Your task to perform on an android device: Clear the cart on walmart. Add macbook to the cart on walmart, then select checkout. Image 0: 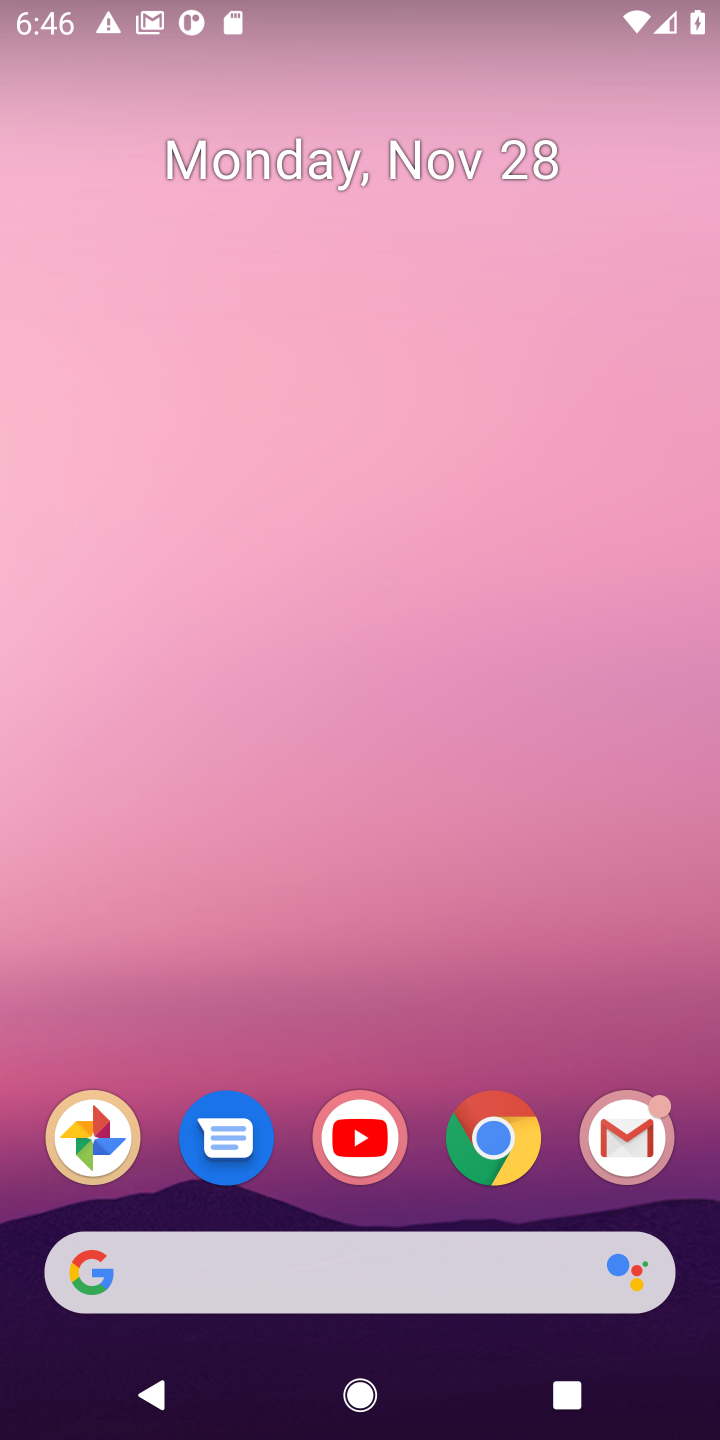
Step 0: click (487, 1133)
Your task to perform on an android device: Clear the cart on walmart. Add macbook to the cart on walmart, then select checkout. Image 1: 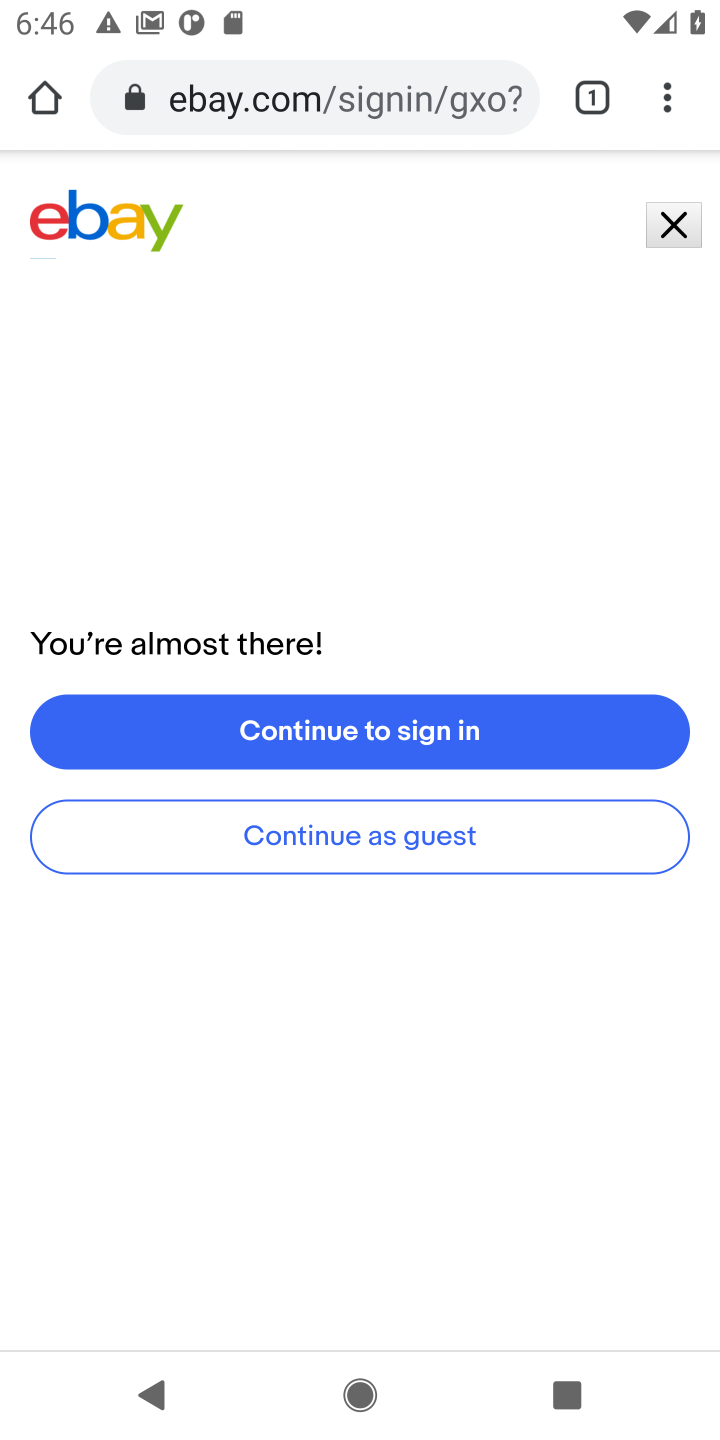
Step 1: click (323, 95)
Your task to perform on an android device: Clear the cart on walmart. Add macbook to the cart on walmart, then select checkout. Image 2: 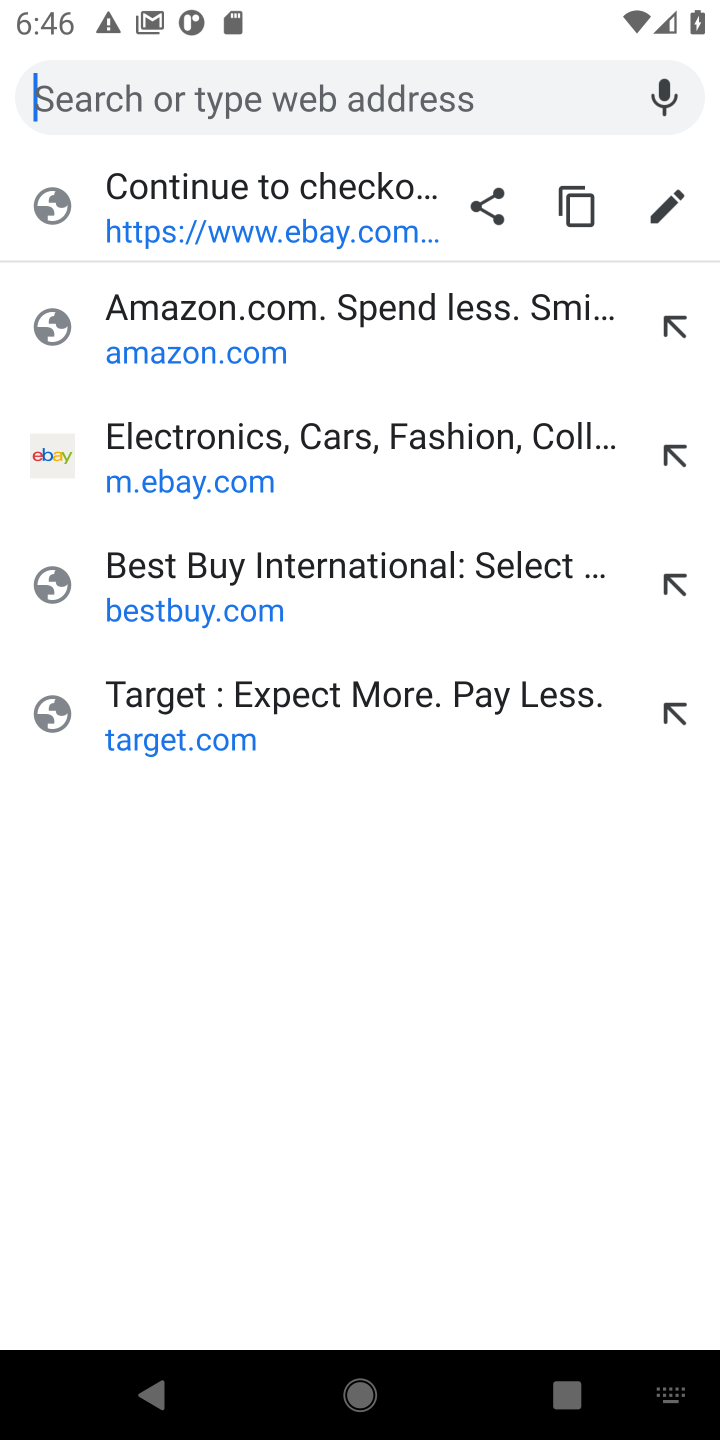
Step 2: type "walmart.com"
Your task to perform on an android device: Clear the cart on walmart. Add macbook to the cart on walmart, then select checkout. Image 3: 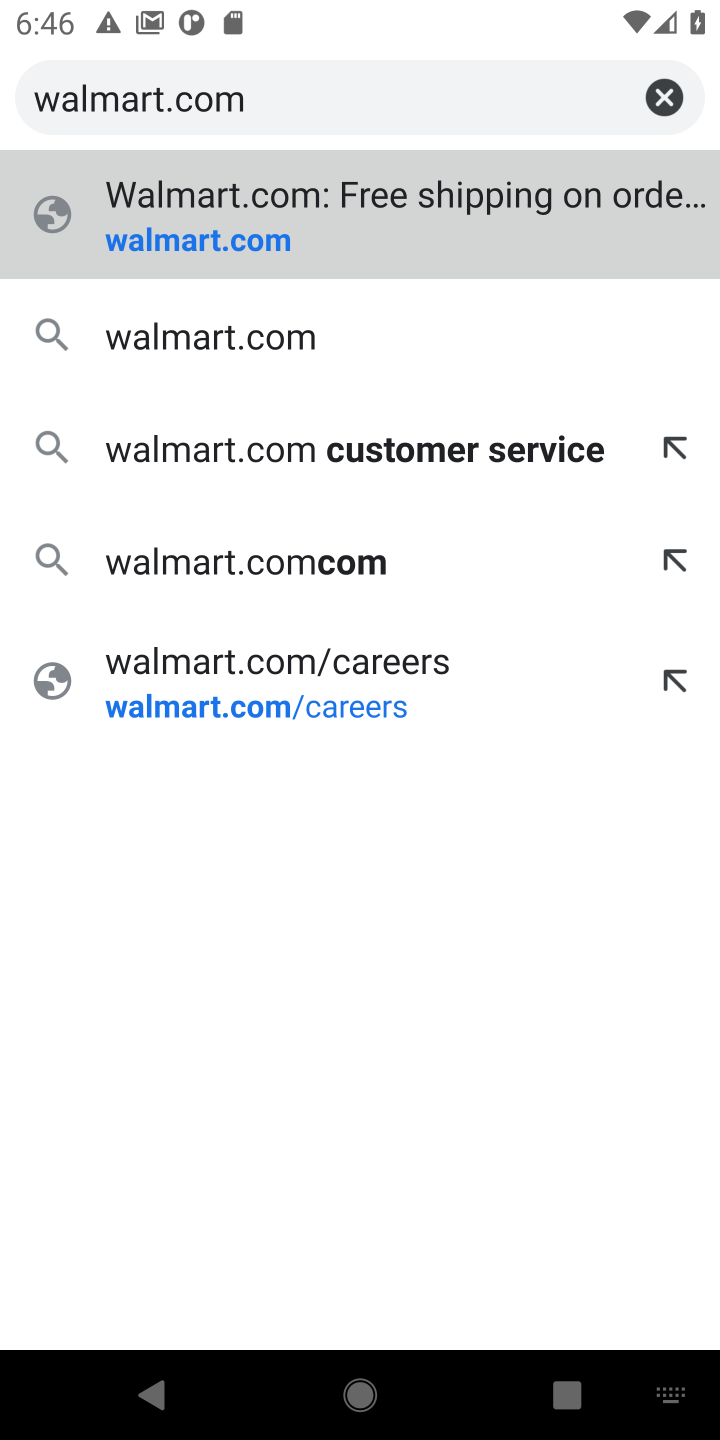
Step 3: click (180, 241)
Your task to perform on an android device: Clear the cart on walmart. Add macbook to the cart on walmart, then select checkout. Image 4: 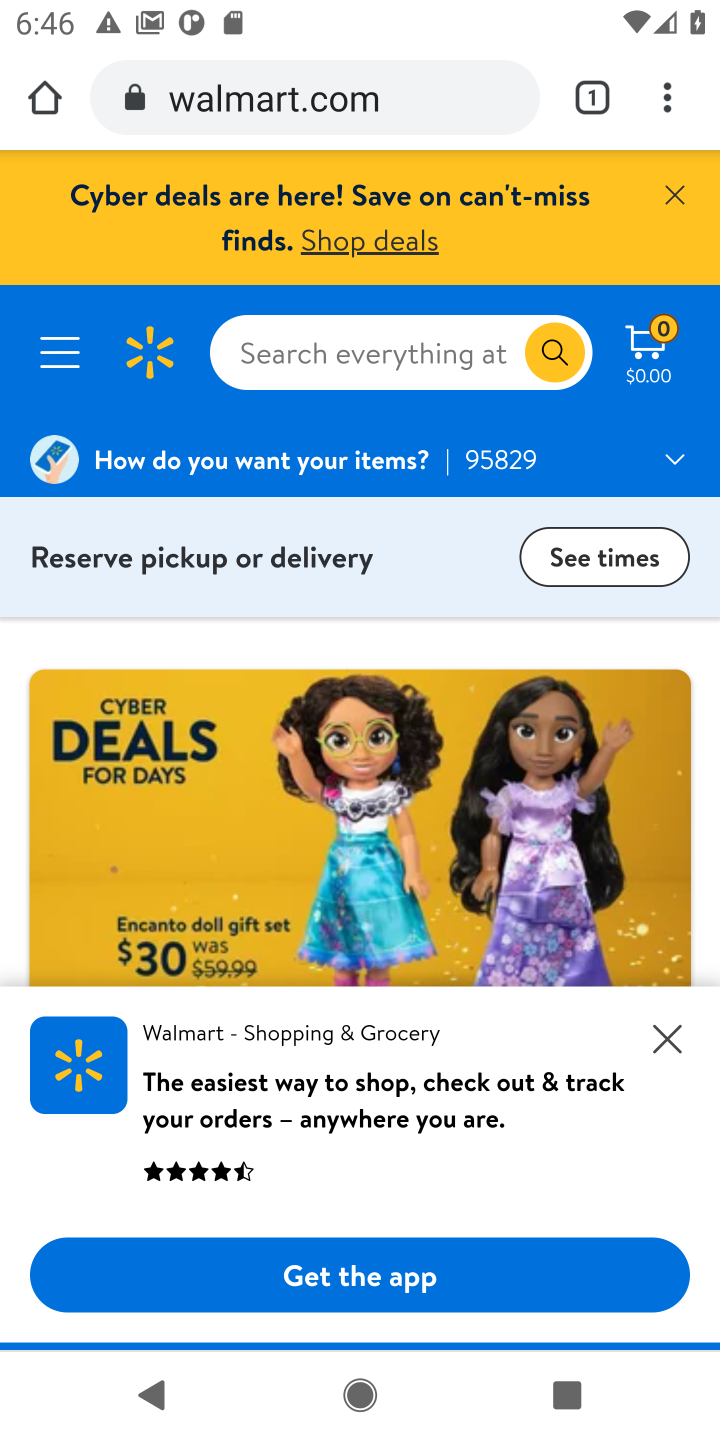
Step 4: click (649, 355)
Your task to perform on an android device: Clear the cart on walmart. Add macbook to the cart on walmart, then select checkout. Image 5: 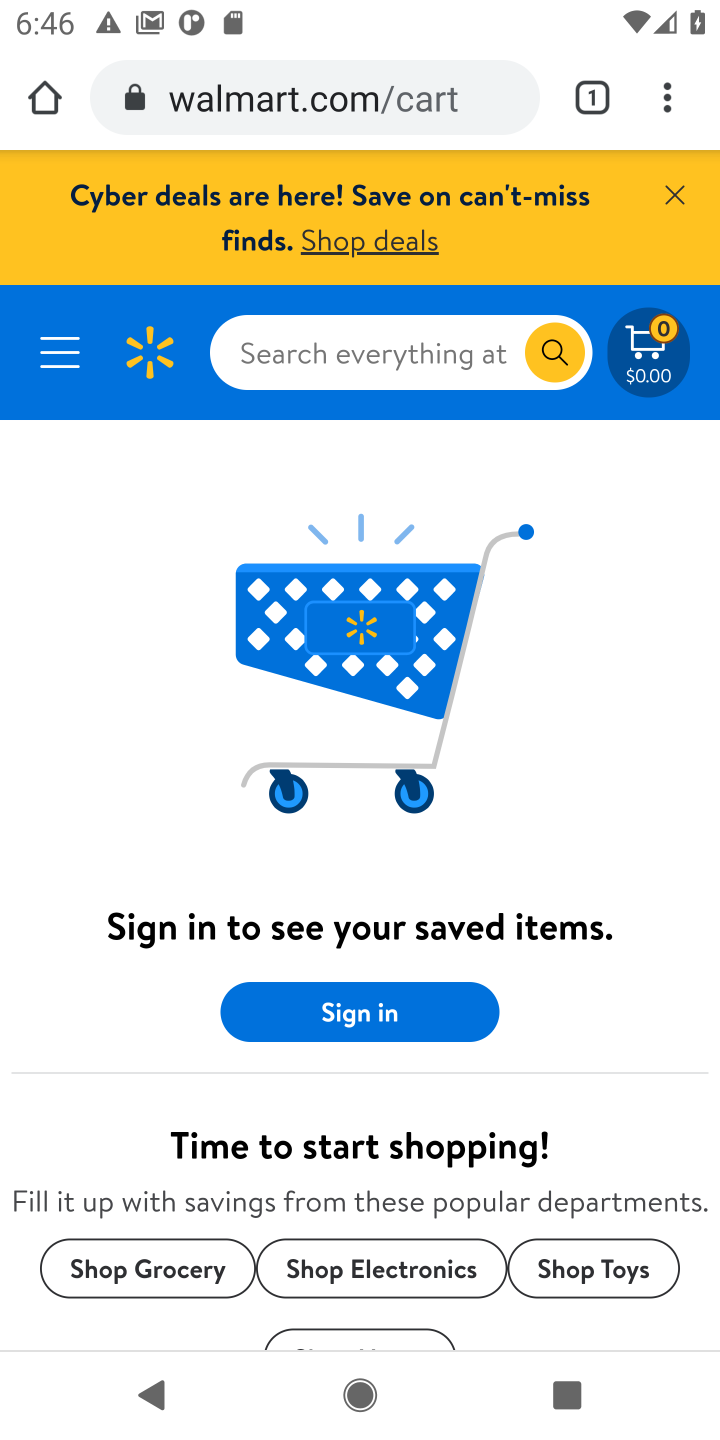
Step 5: click (587, 633)
Your task to perform on an android device: Clear the cart on walmart. Add macbook to the cart on walmart, then select checkout. Image 6: 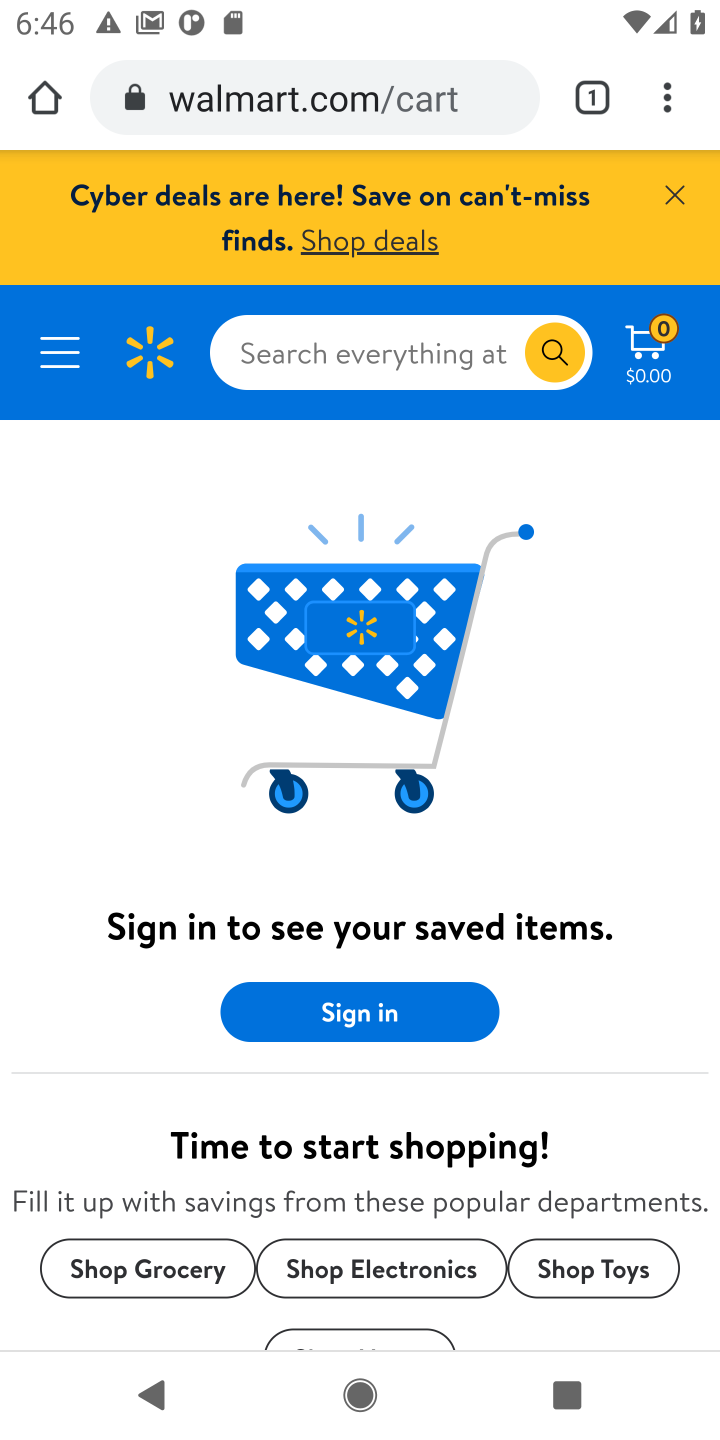
Step 6: click (276, 342)
Your task to perform on an android device: Clear the cart on walmart. Add macbook to the cart on walmart, then select checkout. Image 7: 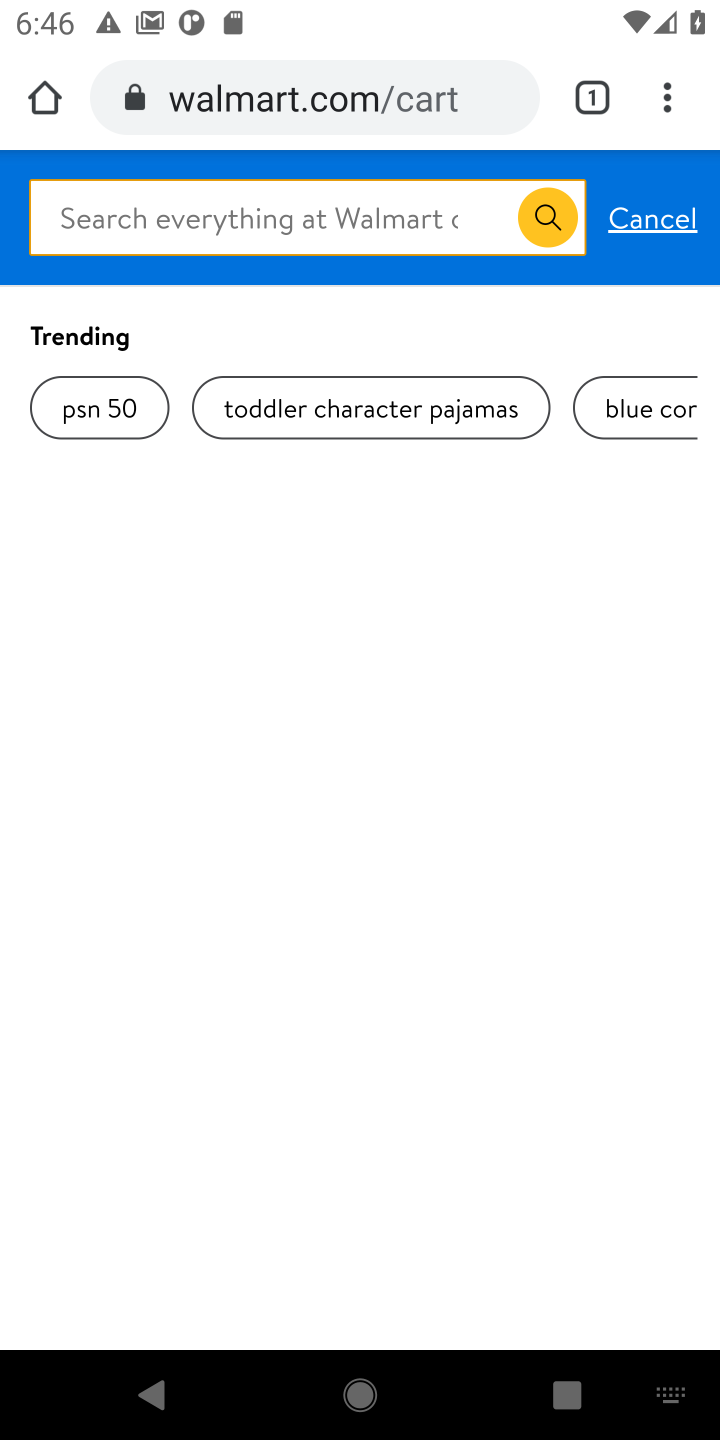
Step 7: type "macbook "
Your task to perform on an android device: Clear the cart on walmart. Add macbook to the cart on walmart, then select checkout. Image 8: 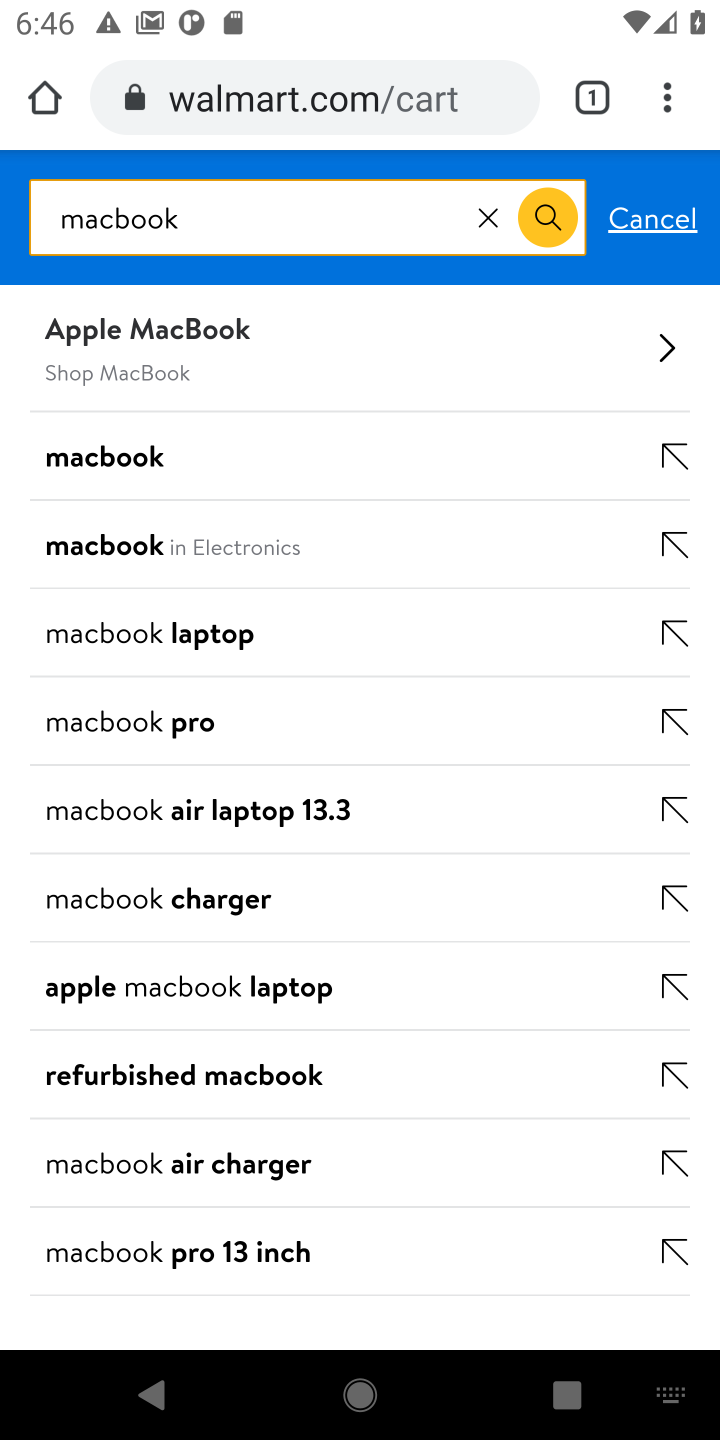
Step 8: click (135, 467)
Your task to perform on an android device: Clear the cart on walmart. Add macbook to the cart on walmart, then select checkout. Image 9: 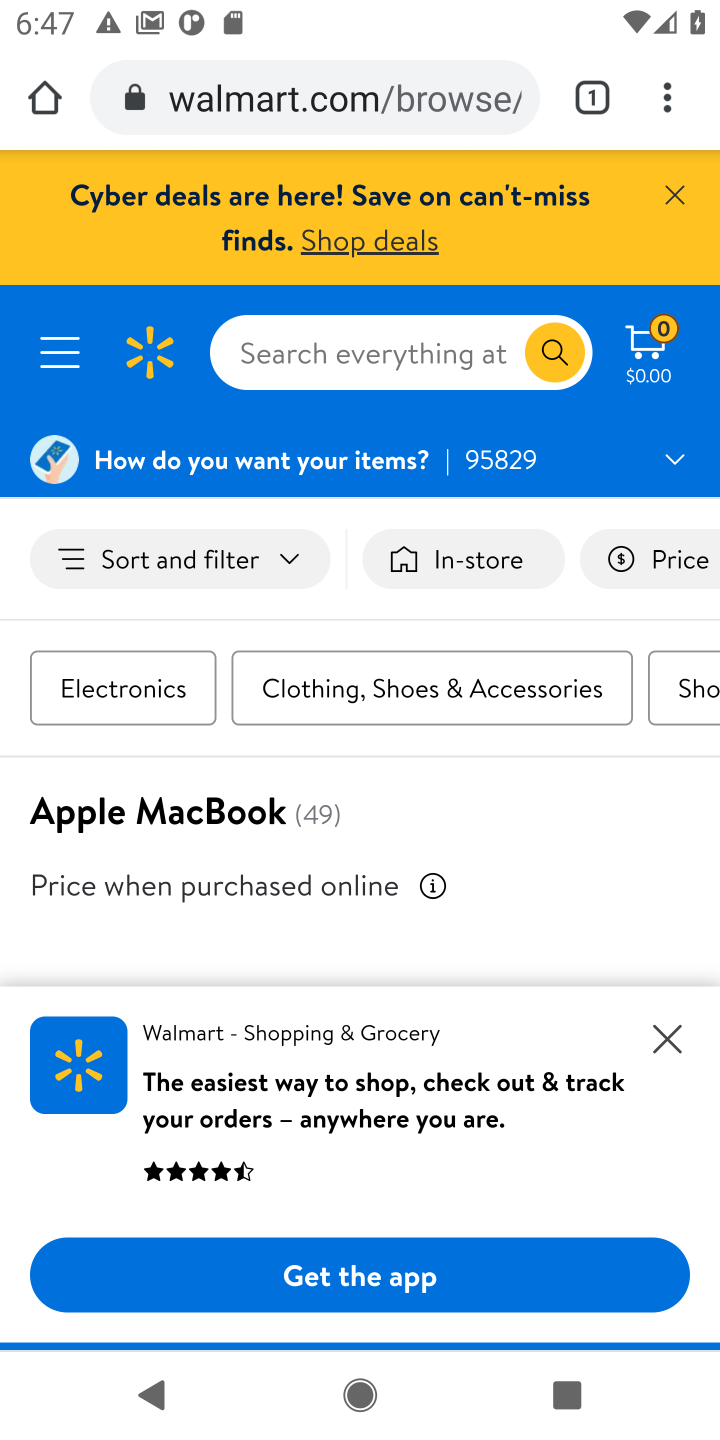
Step 9: click (668, 1047)
Your task to perform on an android device: Clear the cart on walmart. Add macbook to the cart on walmart, then select checkout. Image 10: 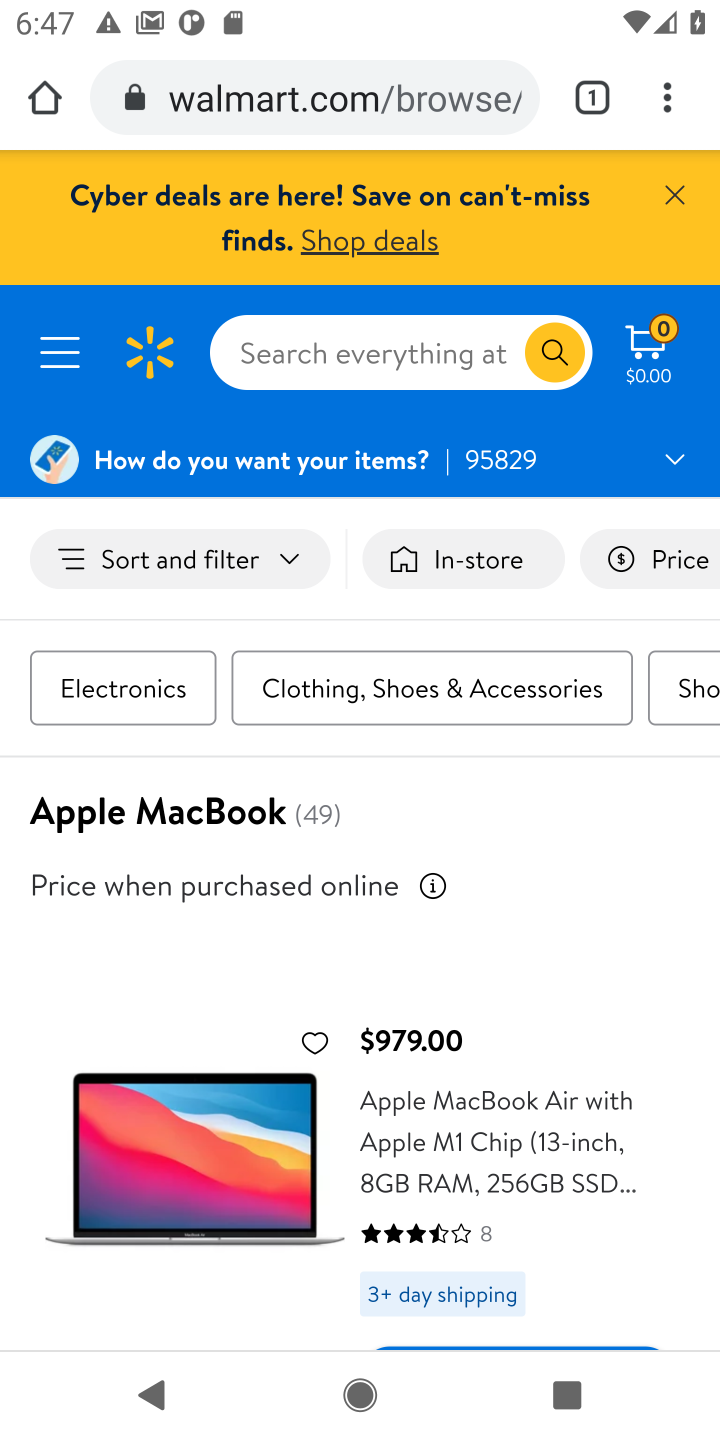
Step 10: drag from (619, 954) to (586, 426)
Your task to perform on an android device: Clear the cart on walmart. Add macbook to the cart on walmart, then select checkout. Image 11: 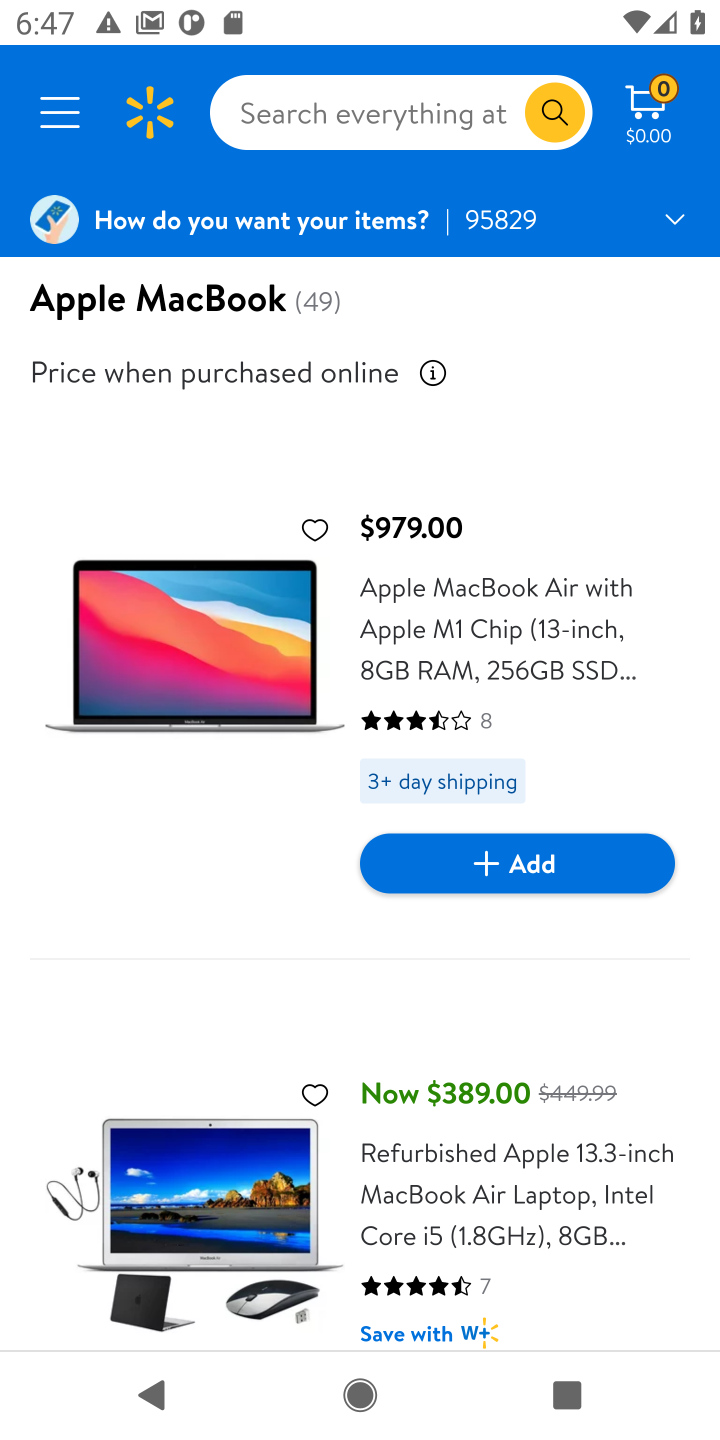
Step 11: click (507, 861)
Your task to perform on an android device: Clear the cart on walmart. Add macbook to the cart on walmart, then select checkout. Image 12: 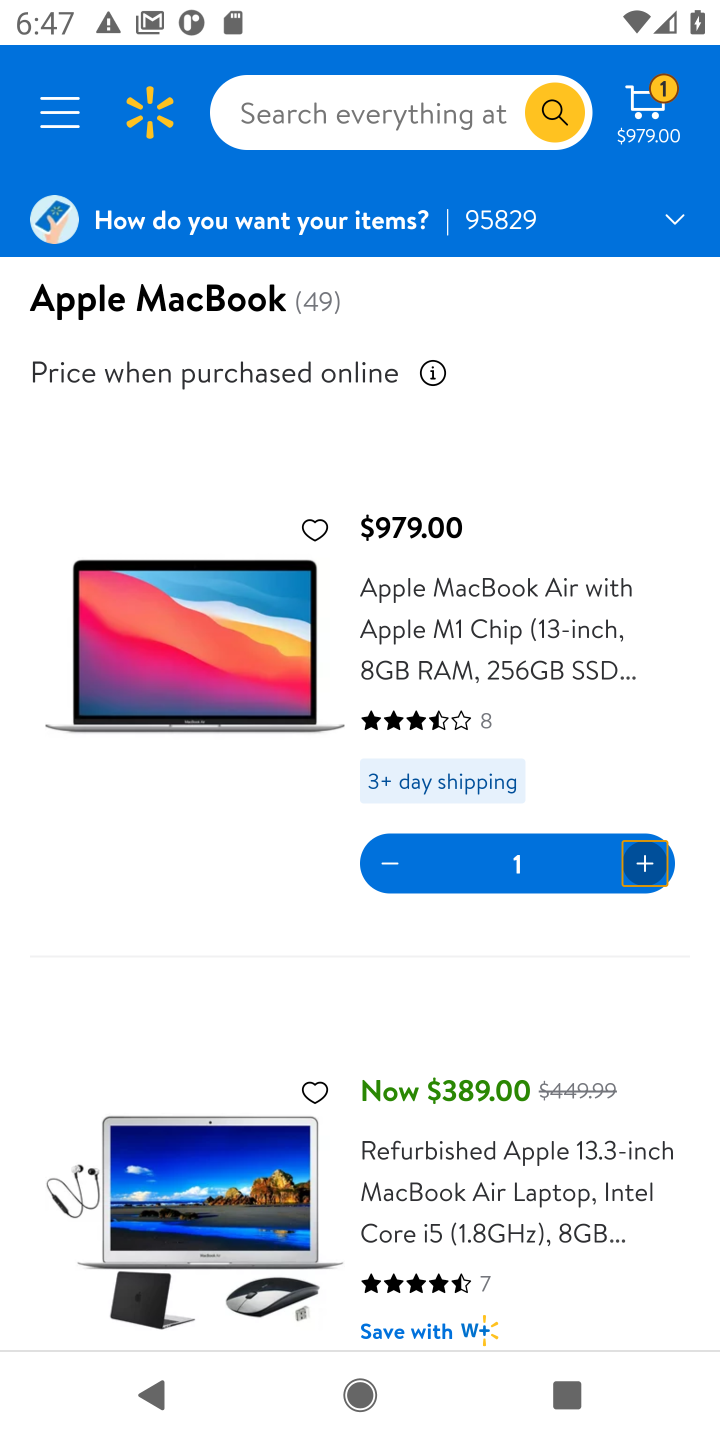
Step 12: click (646, 116)
Your task to perform on an android device: Clear the cart on walmart. Add macbook to the cart on walmart, then select checkout. Image 13: 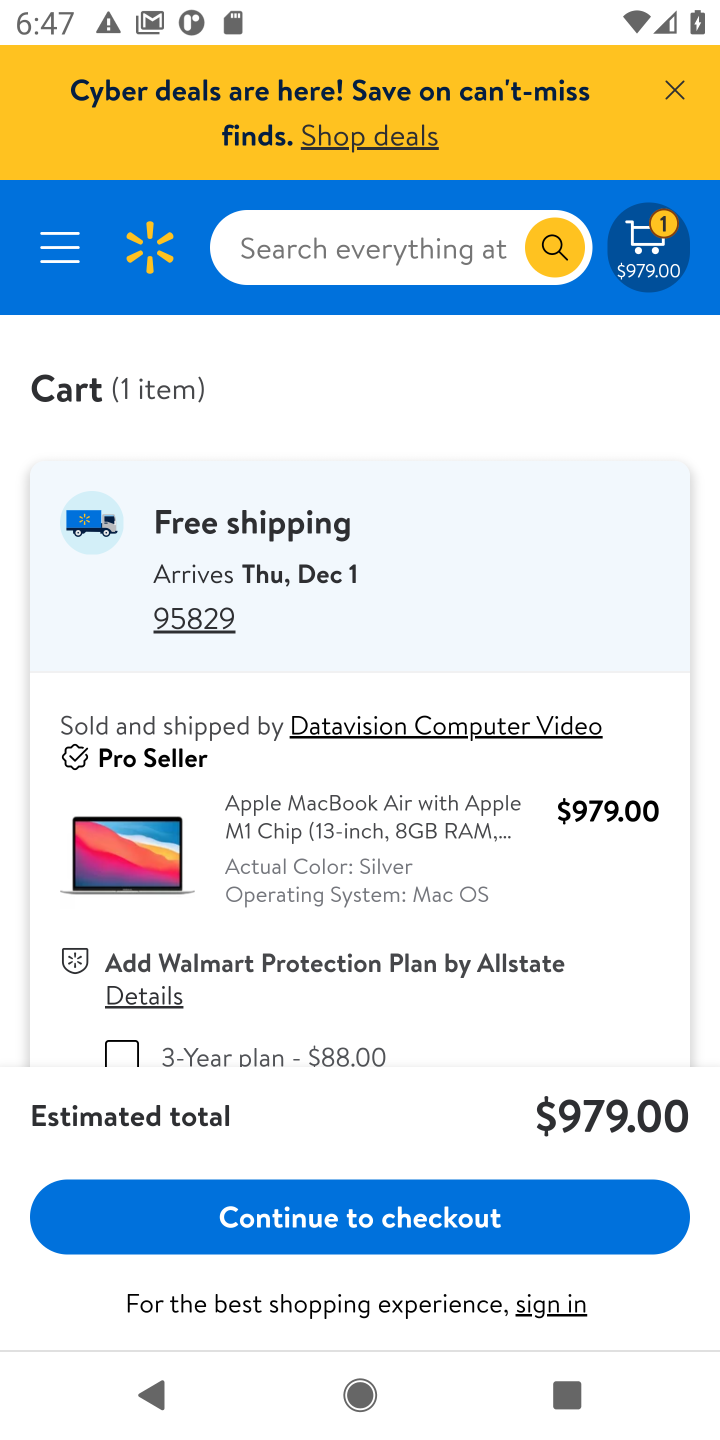
Step 13: click (377, 1217)
Your task to perform on an android device: Clear the cart on walmart. Add macbook to the cart on walmart, then select checkout. Image 14: 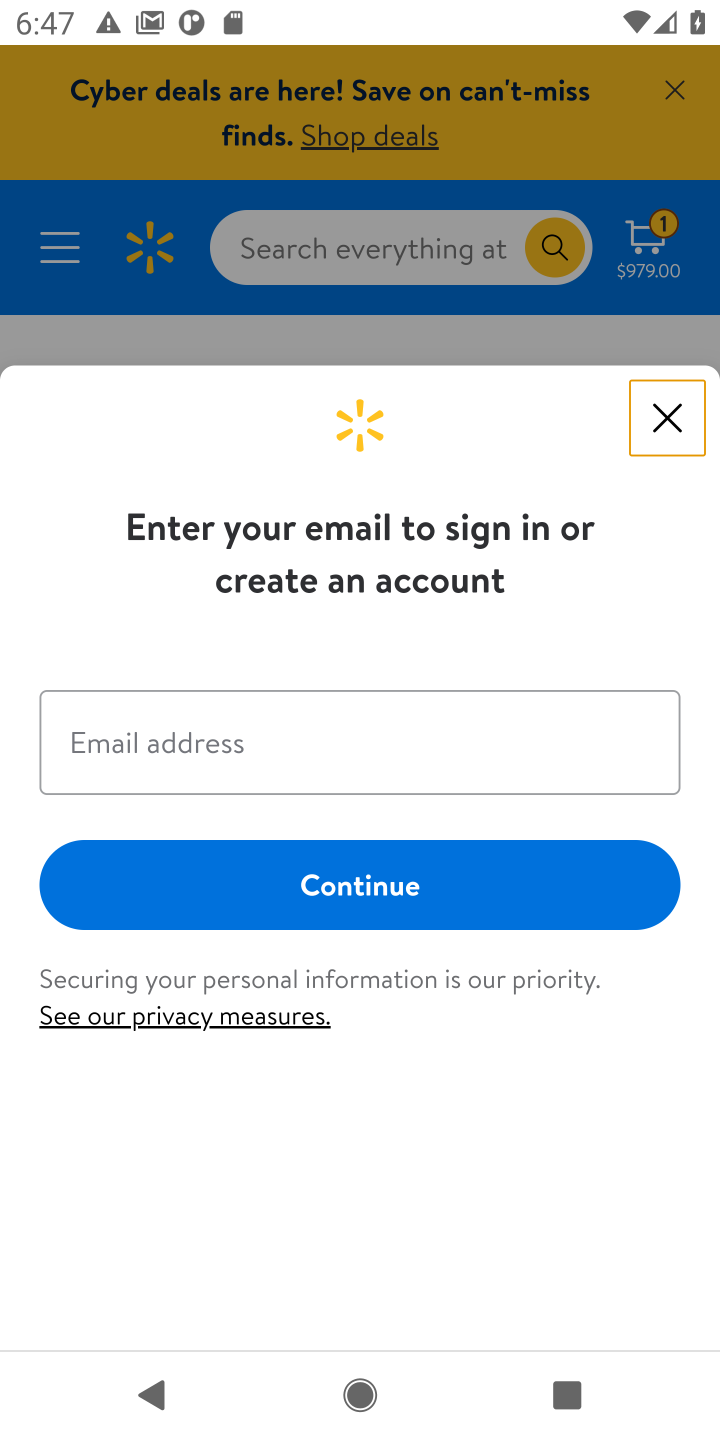
Step 14: task complete